Your task to perform on an android device: Open the calendar app, open the side menu, and click the "Day" option Image 0: 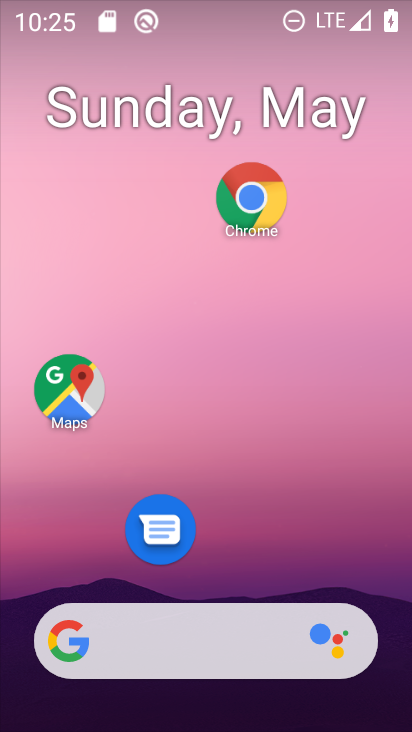
Step 0: drag from (320, 555) to (360, 0)
Your task to perform on an android device: Open the calendar app, open the side menu, and click the "Day" option Image 1: 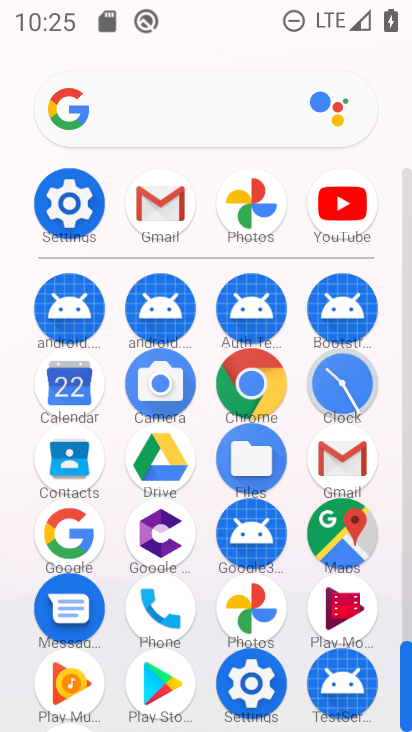
Step 1: click (68, 382)
Your task to perform on an android device: Open the calendar app, open the side menu, and click the "Day" option Image 2: 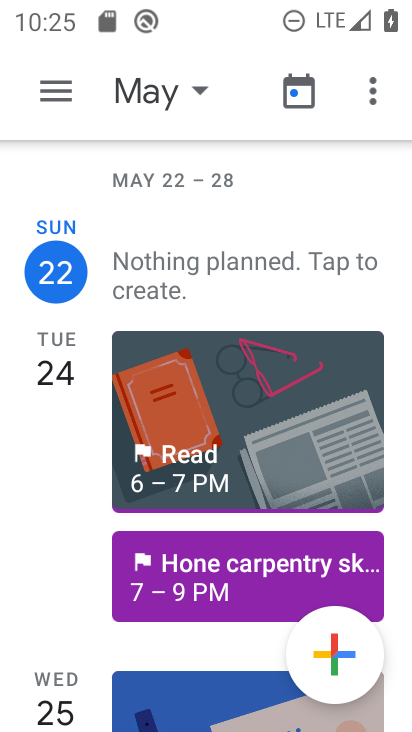
Step 2: click (62, 107)
Your task to perform on an android device: Open the calendar app, open the side menu, and click the "Day" option Image 3: 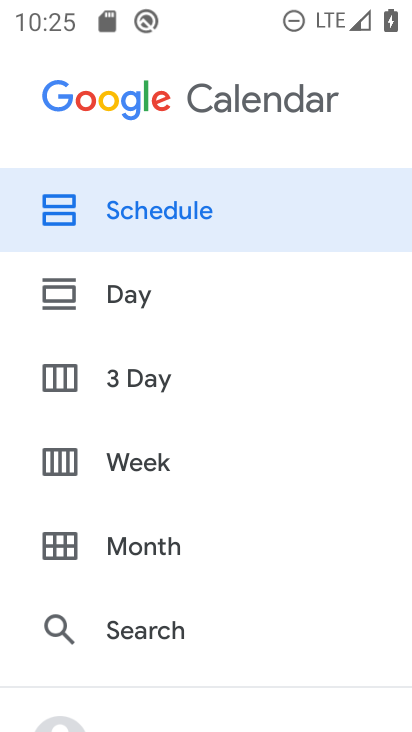
Step 3: click (126, 287)
Your task to perform on an android device: Open the calendar app, open the side menu, and click the "Day" option Image 4: 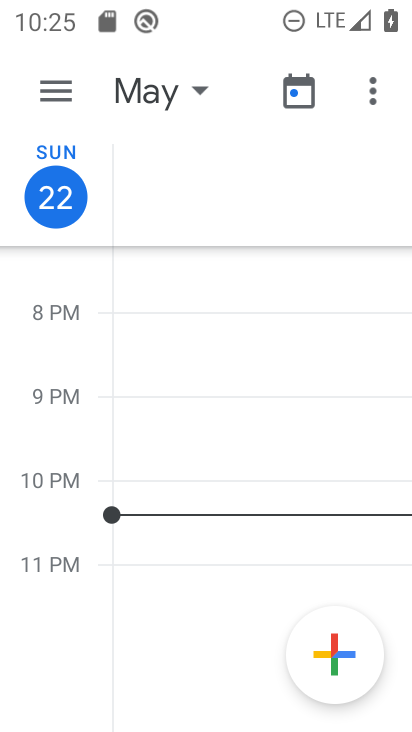
Step 4: task complete